Your task to perform on an android device: turn on improve location accuracy Image 0: 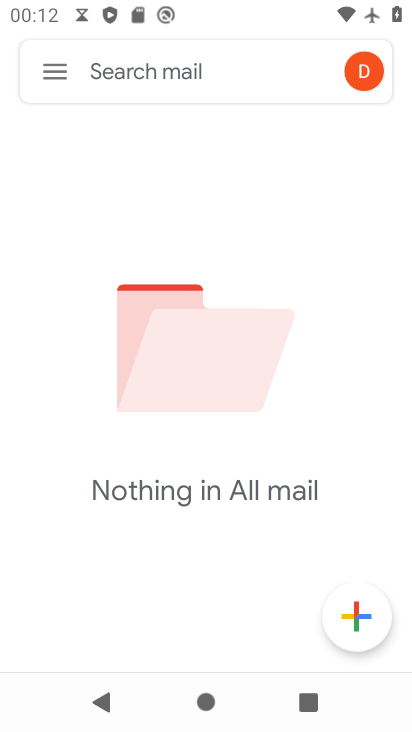
Step 0: press home button
Your task to perform on an android device: turn on improve location accuracy Image 1: 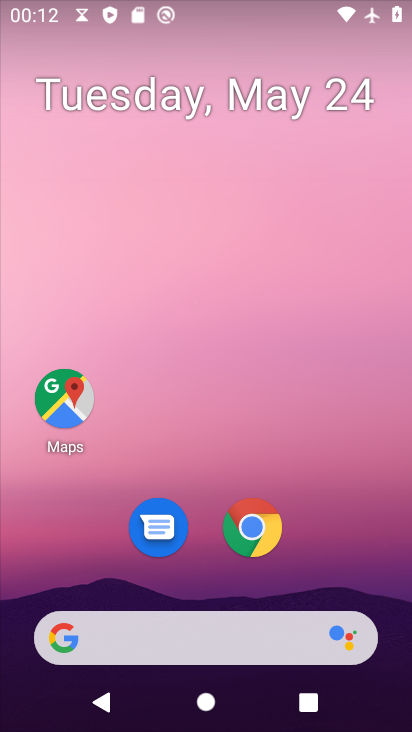
Step 1: drag from (147, 662) to (299, 79)
Your task to perform on an android device: turn on improve location accuracy Image 2: 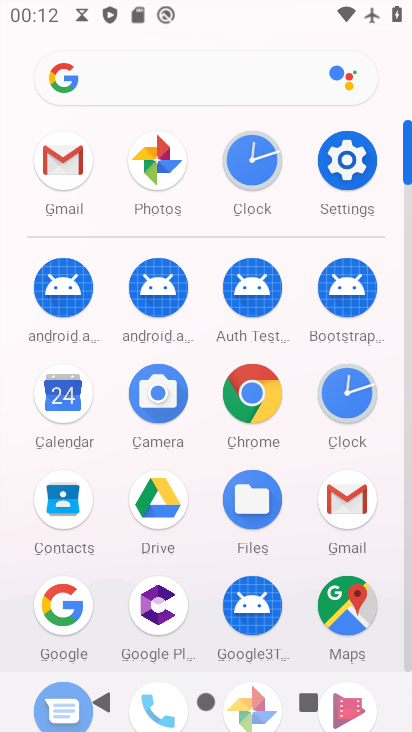
Step 2: click (344, 164)
Your task to perform on an android device: turn on improve location accuracy Image 3: 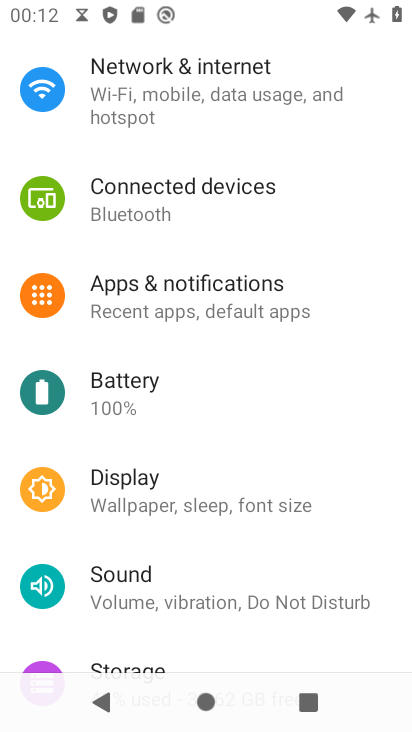
Step 3: drag from (204, 562) to (349, 157)
Your task to perform on an android device: turn on improve location accuracy Image 4: 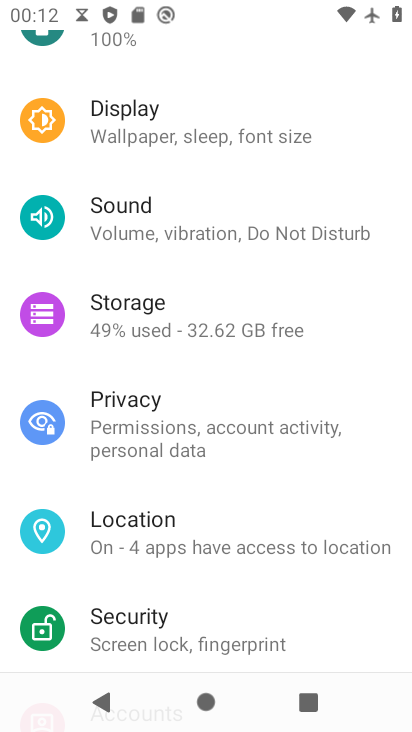
Step 4: click (148, 532)
Your task to perform on an android device: turn on improve location accuracy Image 5: 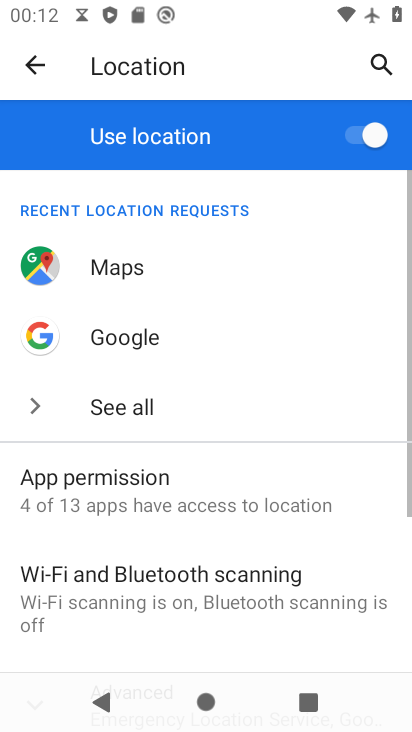
Step 5: drag from (160, 549) to (308, 188)
Your task to perform on an android device: turn on improve location accuracy Image 6: 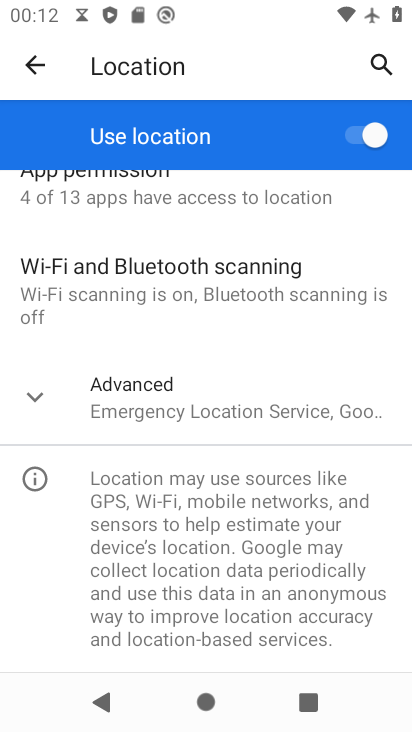
Step 6: click (167, 408)
Your task to perform on an android device: turn on improve location accuracy Image 7: 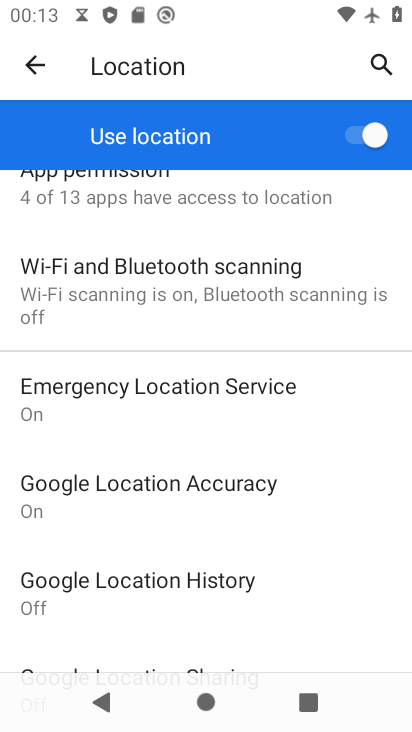
Step 7: click (100, 494)
Your task to perform on an android device: turn on improve location accuracy Image 8: 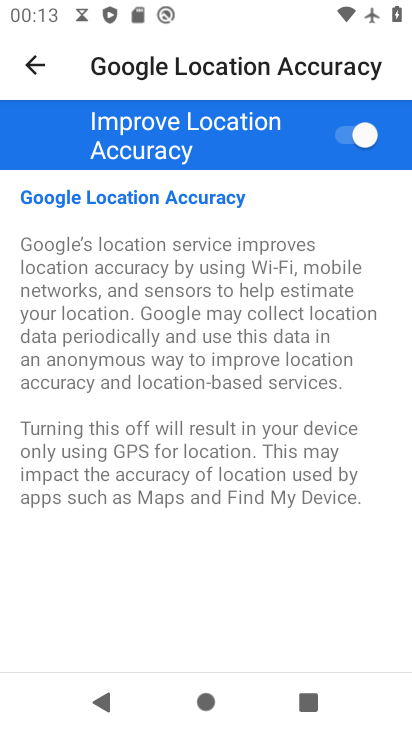
Step 8: task complete